Your task to perform on an android device: Go to calendar. Show me events next week Image 0: 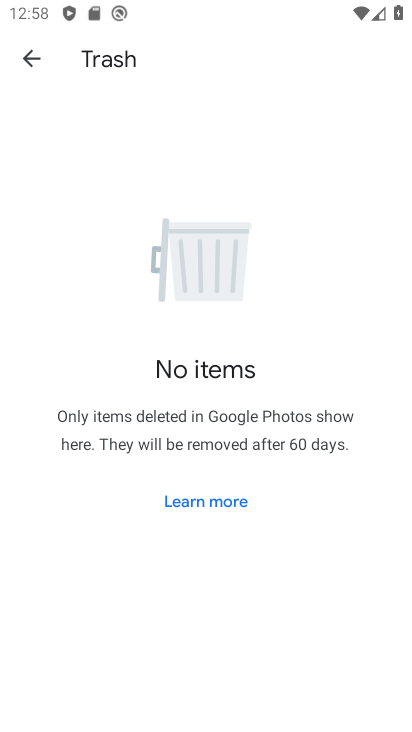
Step 0: press home button
Your task to perform on an android device: Go to calendar. Show me events next week Image 1: 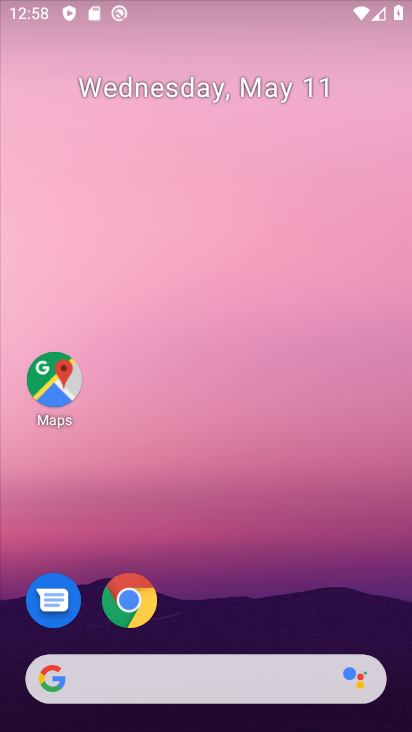
Step 1: drag from (278, 548) to (381, 198)
Your task to perform on an android device: Go to calendar. Show me events next week Image 2: 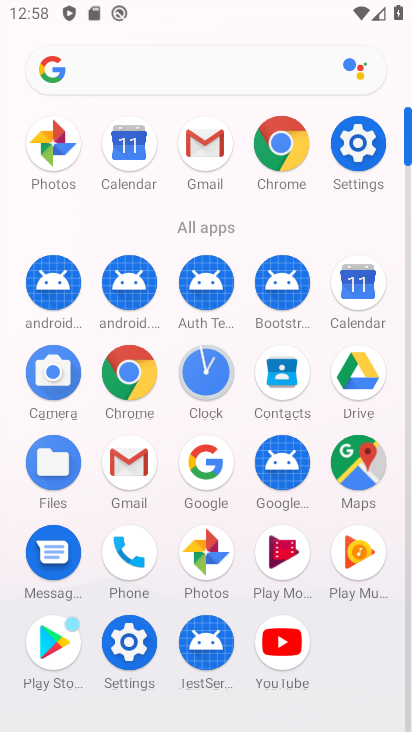
Step 2: click (351, 284)
Your task to perform on an android device: Go to calendar. Show me events next week Image 3: 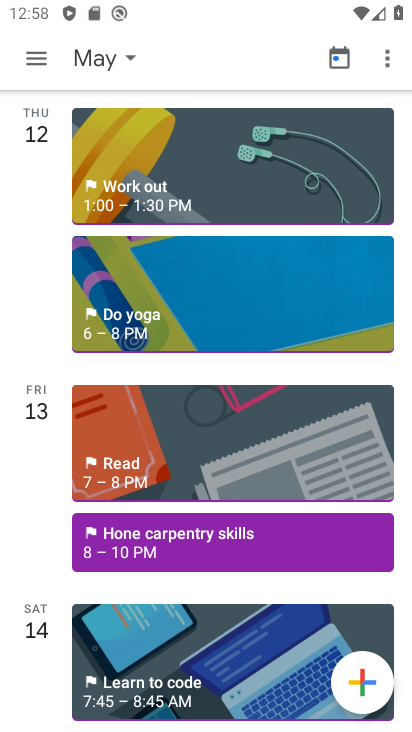
Step 3: click (31, 49)
Your task to perform on an android device: Go to calendar. Show me events next week Image 4: 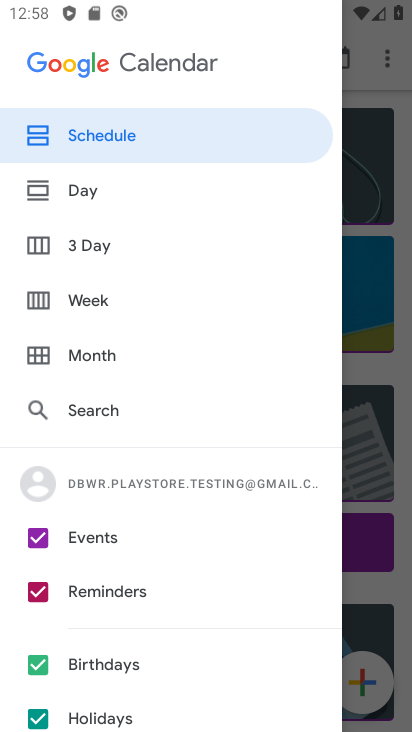
Step 4: click (112, 293)
Your task to perform on an android device: Go to calendar. Show me events next week Image 5: 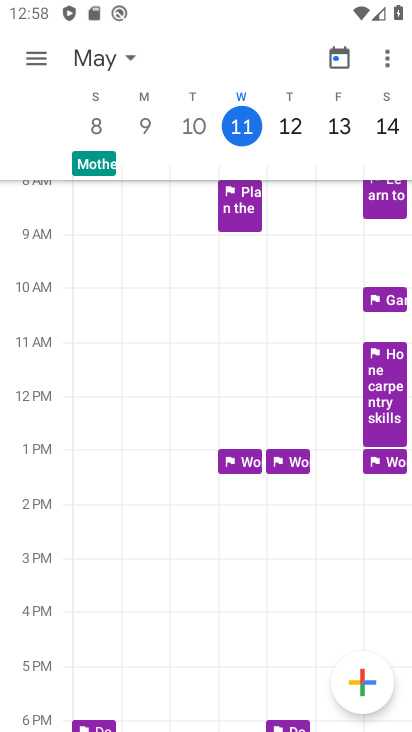
Step 5: click (291, 124)
Your task to perform on an android device: Go to calendar. Show me events next week Image 6: 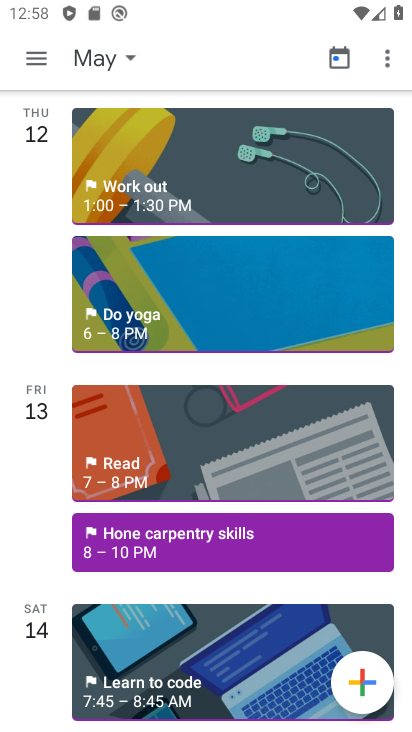
Step 6: click (41, 58)
Your task to perform on an android device: Go to calendar. Show me events next week Image 7: 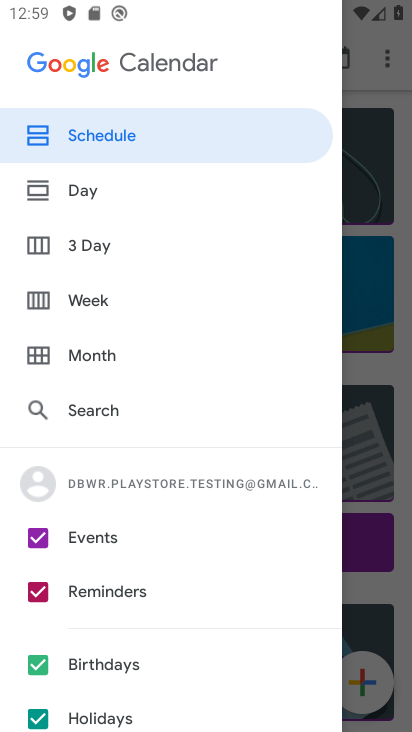
Step 7: click (77, 297)
Your task to perform on an android device: Go to calendar. Show me events next week Image 8: 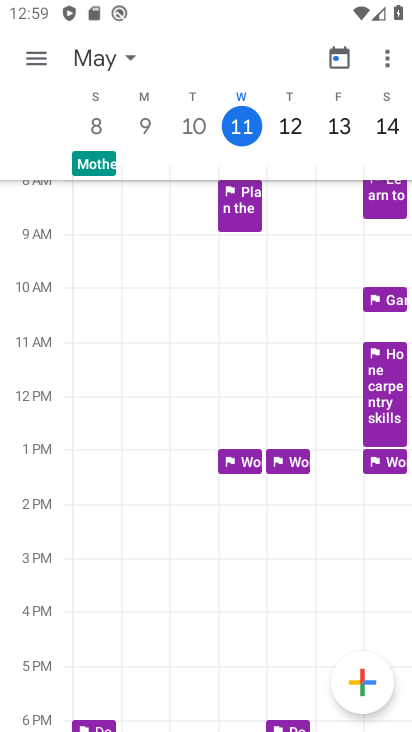
Step 8: task complete